Your task to perform on an android device: open chrome and create a bookmark for the current page Image 0: 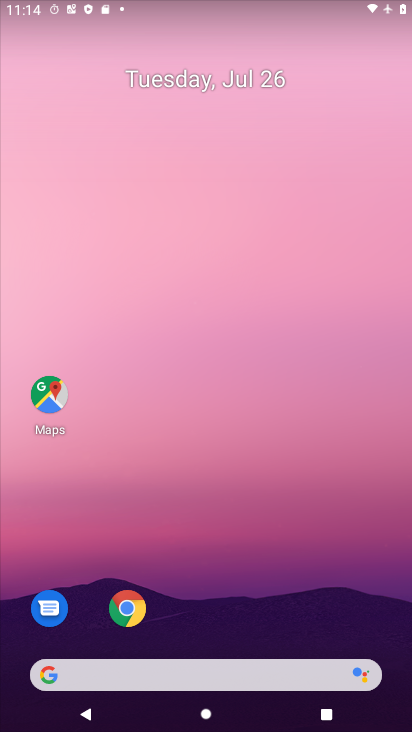
Step 0: click (116, 613)
Your task to perform on an android device: open chrome and create a bookmark for the current page Image 1: 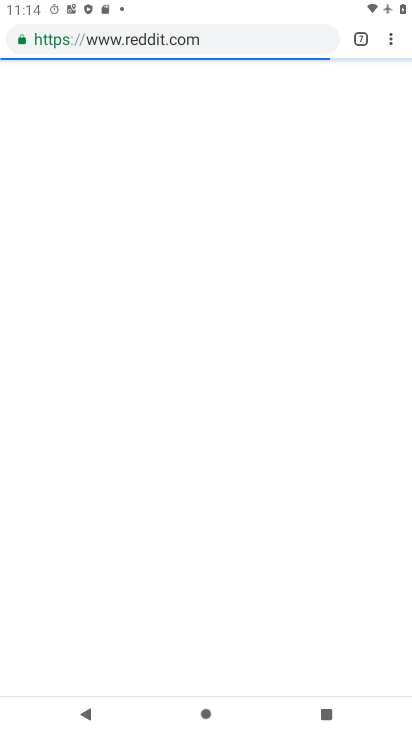
Step 1: click (362, 39)
Your task to perform on an android device: open chrome and create a bookmark for the current page Image 2: 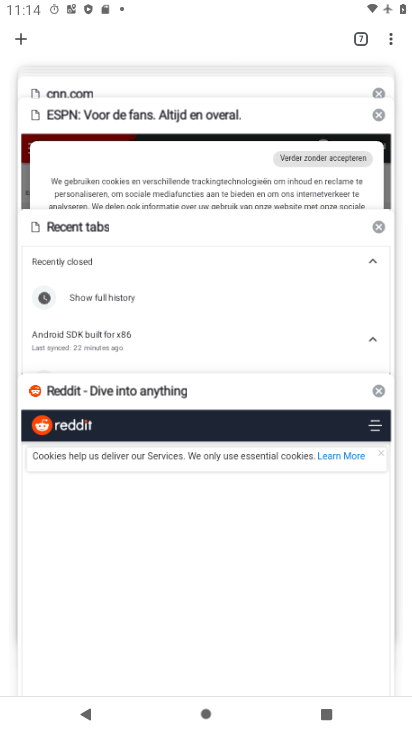
Step 2: click (25, 42)
Your task to perform on an android device: open chrome and create a bookmark for the current page Image 3: 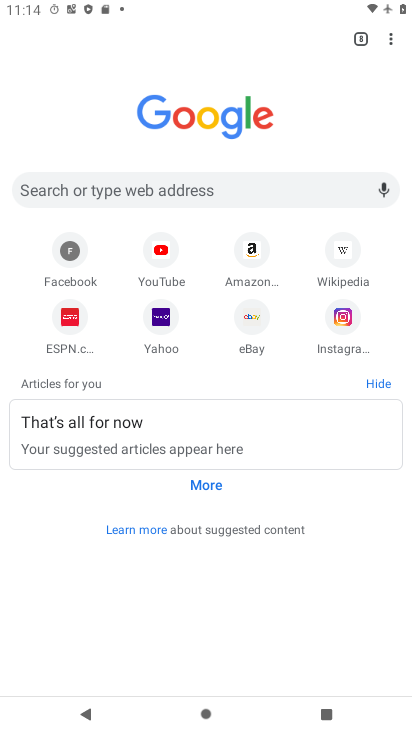
Step 3: drag from (216, 596) to (257, 207)
Your task to perform on an android device: open chrome and create a bookmark for the current page Image 4: 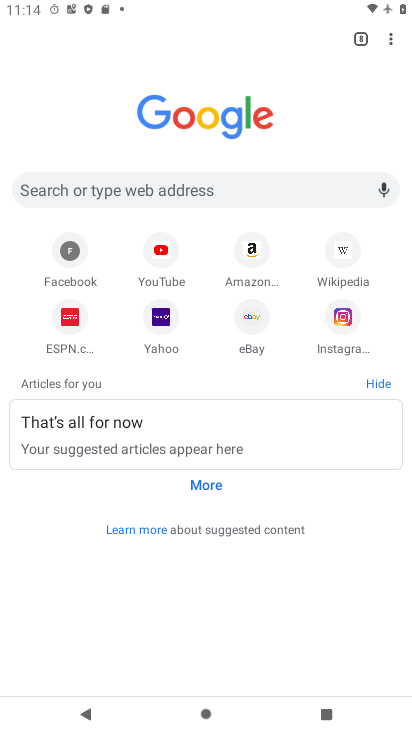
Step 4: drag from (201, 565) to (217, 250)
Your task to perform on an android device: open chrome and create a bookmark for the current page Image 5: 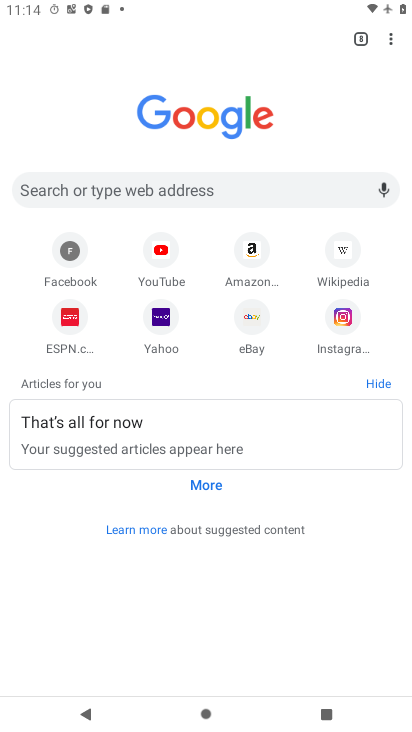
Step 5: drag from (211, 545) to (212, 348)
Your task to perform on an android device: open chrome and create a bookmark for the current page Image 6: 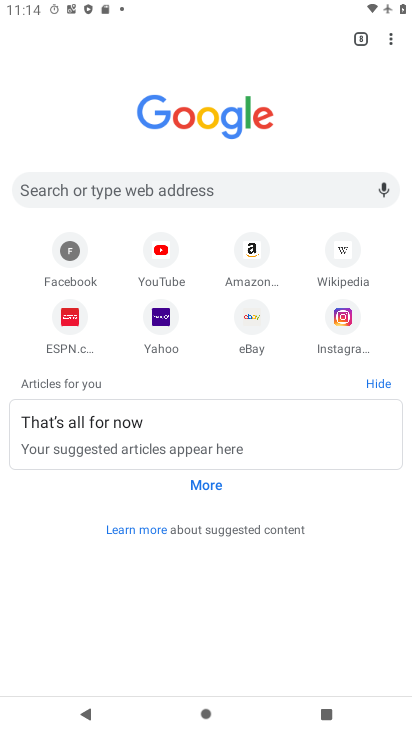
Step 6: drag from (232, 611) to (243, 190)
Your task to perform on an android device: open chrome and create a bookmark for the current page Image 7: 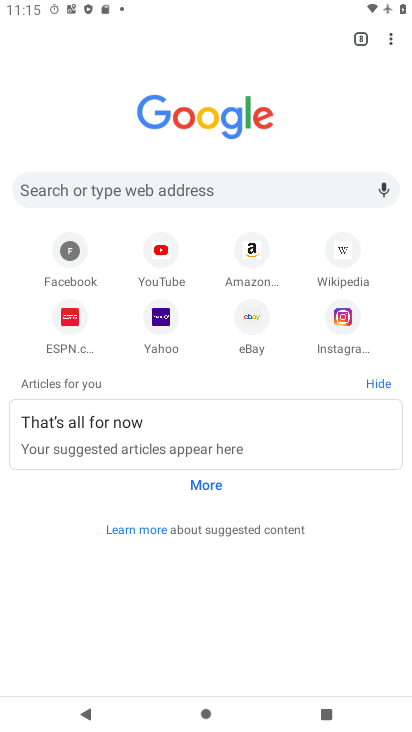
Step 7: click (208, 181)
Your task to perform on an android device: open chrome and create a bookmark for the current page Image 8: 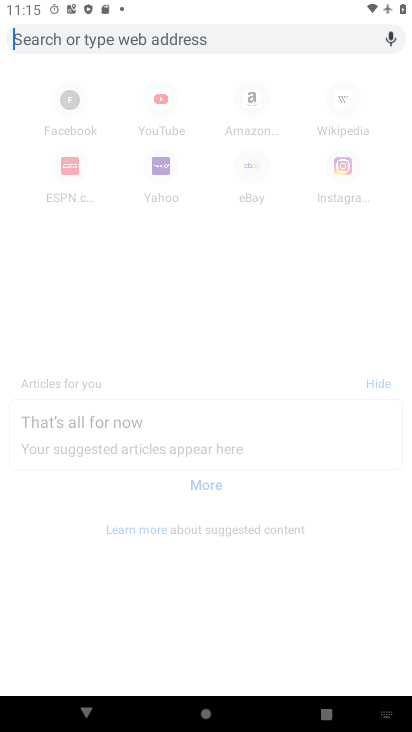
Step 8: type "fgfhg"
Your task to perform on an android device: open chrome and create a bookmark for the current page Image 9: 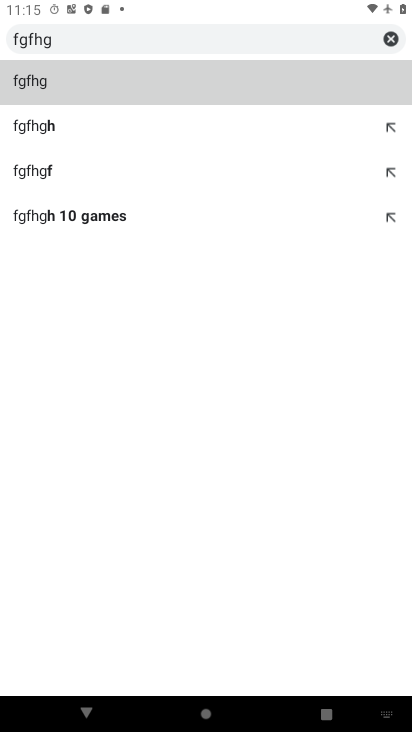
Step 9: click (83, 121)
Your task to perform on an android device: open chrome and create a bookmark for the current page Image 10: 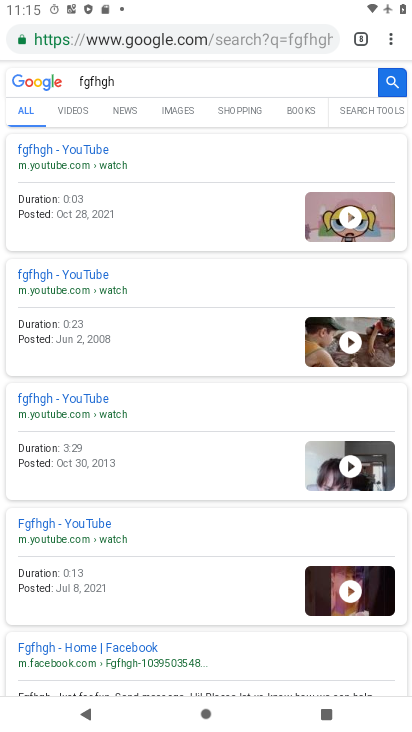
Step 10: drag from (148, 595) to (157, 125)
Your task to perform on an android device: open chrome and create a bookmark for the current page Image 11: 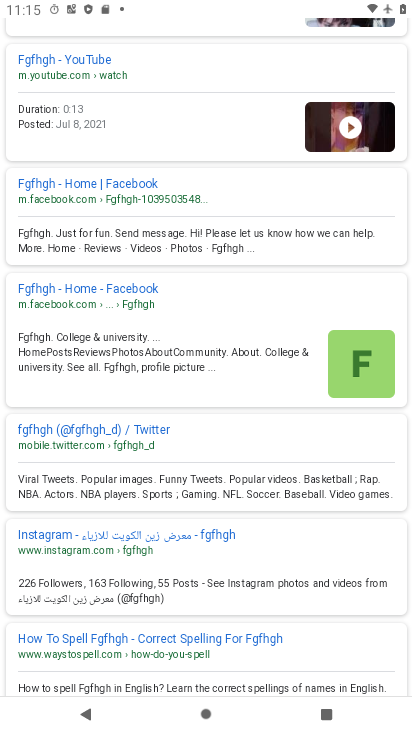
Step 11: drag from (201, 525) to (213, 76)
Your task to perform on an android device: open chrome and create a bookmark for the current page Image 12: 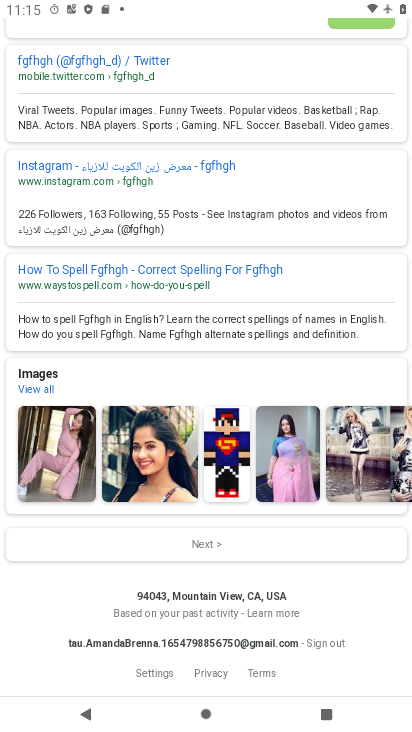
Step 12: click (145, 88)
Your task to perform on an android device: open chrome and create a bookmark for the current page Image 13: 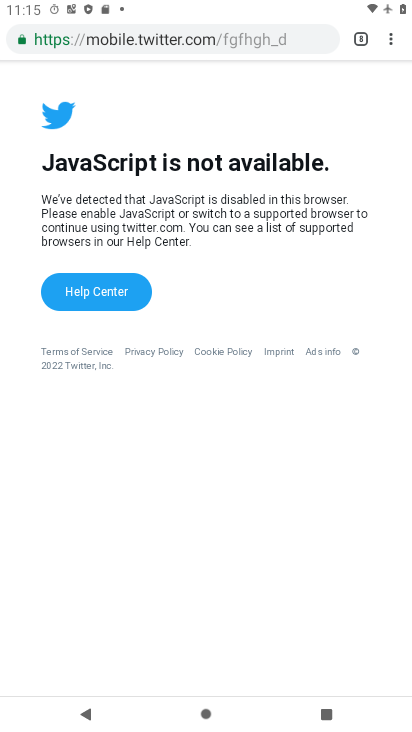
Step 13: click (382, 45)
Your task to perform on an android device: open chrome and create a bookmark for the current page Image 14: 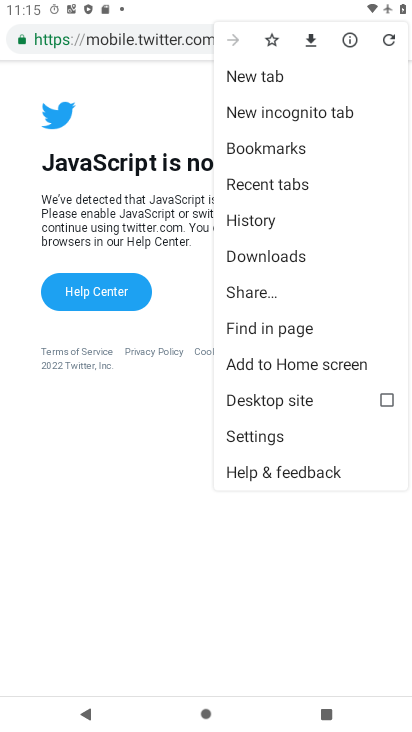
Step 14: click (277, 44)
Your task to perform on an android device: open chrome and create a bookmark for the current page Image 15: 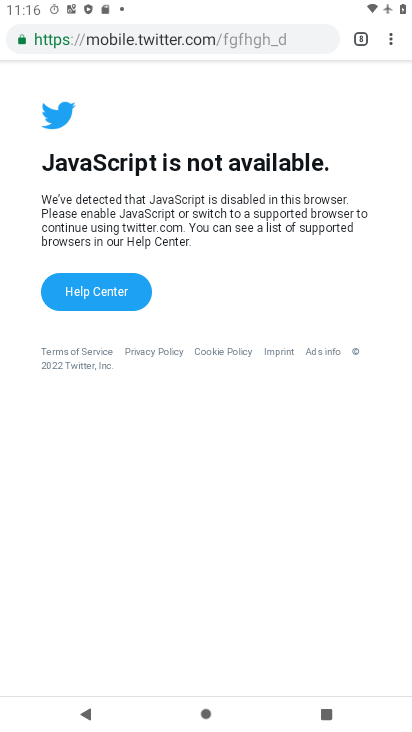
Step 15: task complete